Your task to perform on an android device: What's the weather going to be this weekend? Image 0: 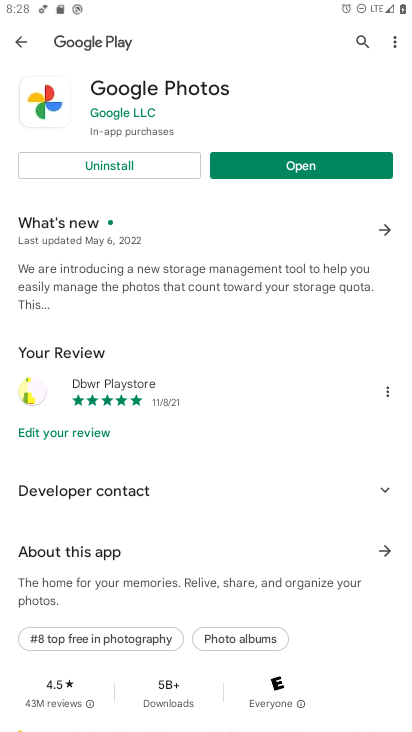
Step 0: press home button
Your task to perform on an android device: What's the weather going to be this weekend? Image 1: 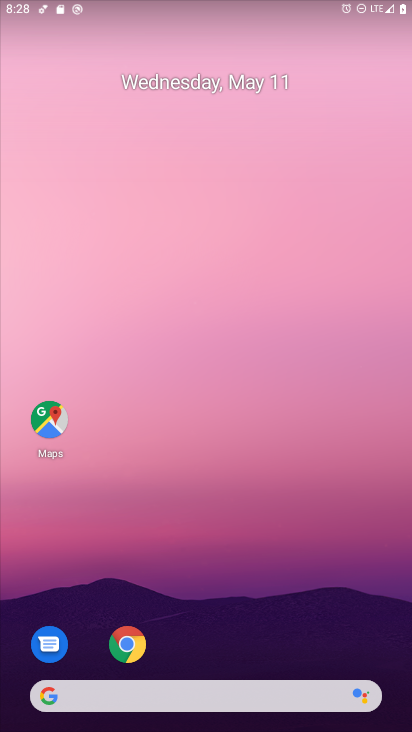
Step 1: drag from (195, 563) to (177, 58)
Your task to perform on an android device: What's the weather going to be this weekend? Image 2: 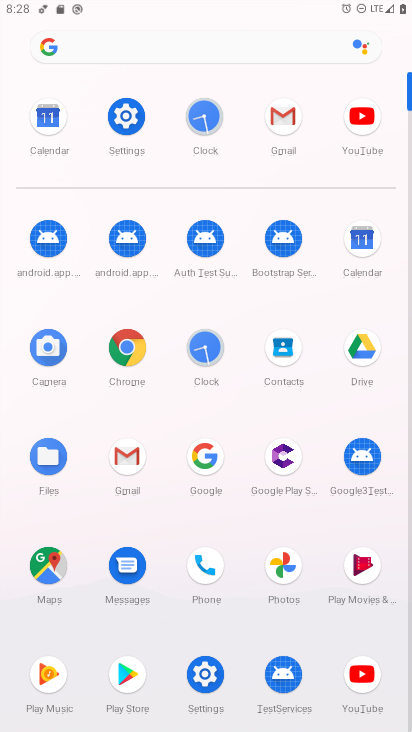
Step 2: click (203, 465)
Your task to perform on an android device: What's the weather going to be this weekend? Image 3: 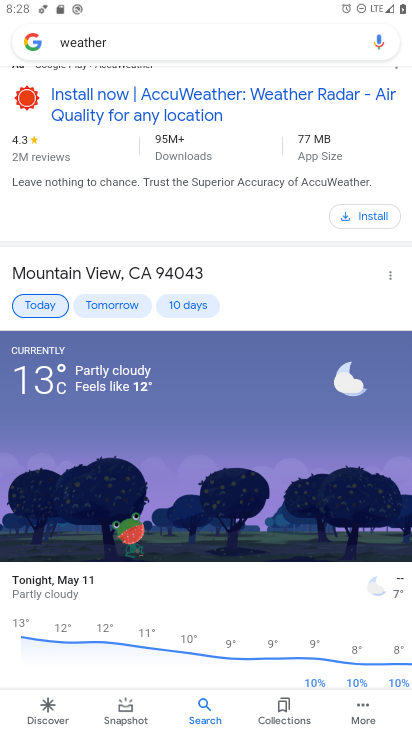
Step 3: drag from (202, 612) to (185, 400)
Your task to perform on an android device: What's the weather going to be this weekend? Image 4: 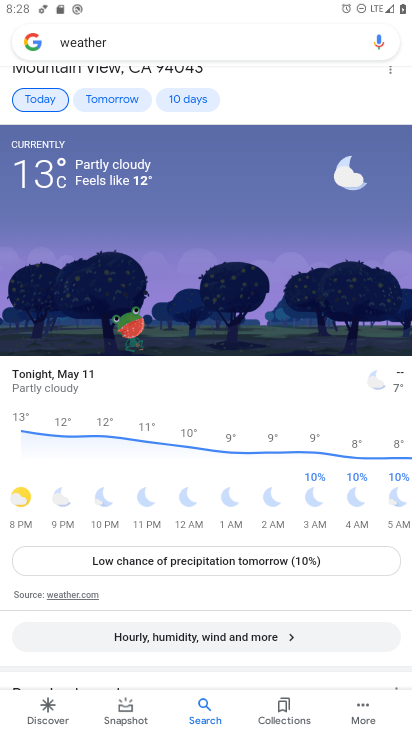
Step 4: click (178, 95)
Your task to perform on an android device: What's the weather going to be this weekend? Image 5: 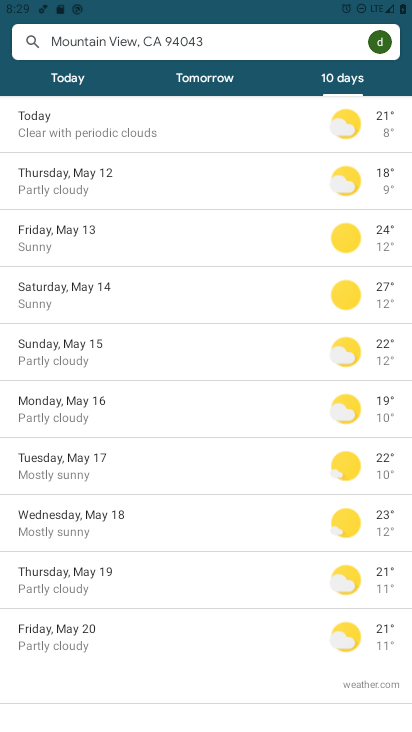
Step 5: task complete